Your task to perform on an android device: Search for "razer naga" on bestbuy.com, select the first entry, add it to the cart, then select checkout. Image 0: 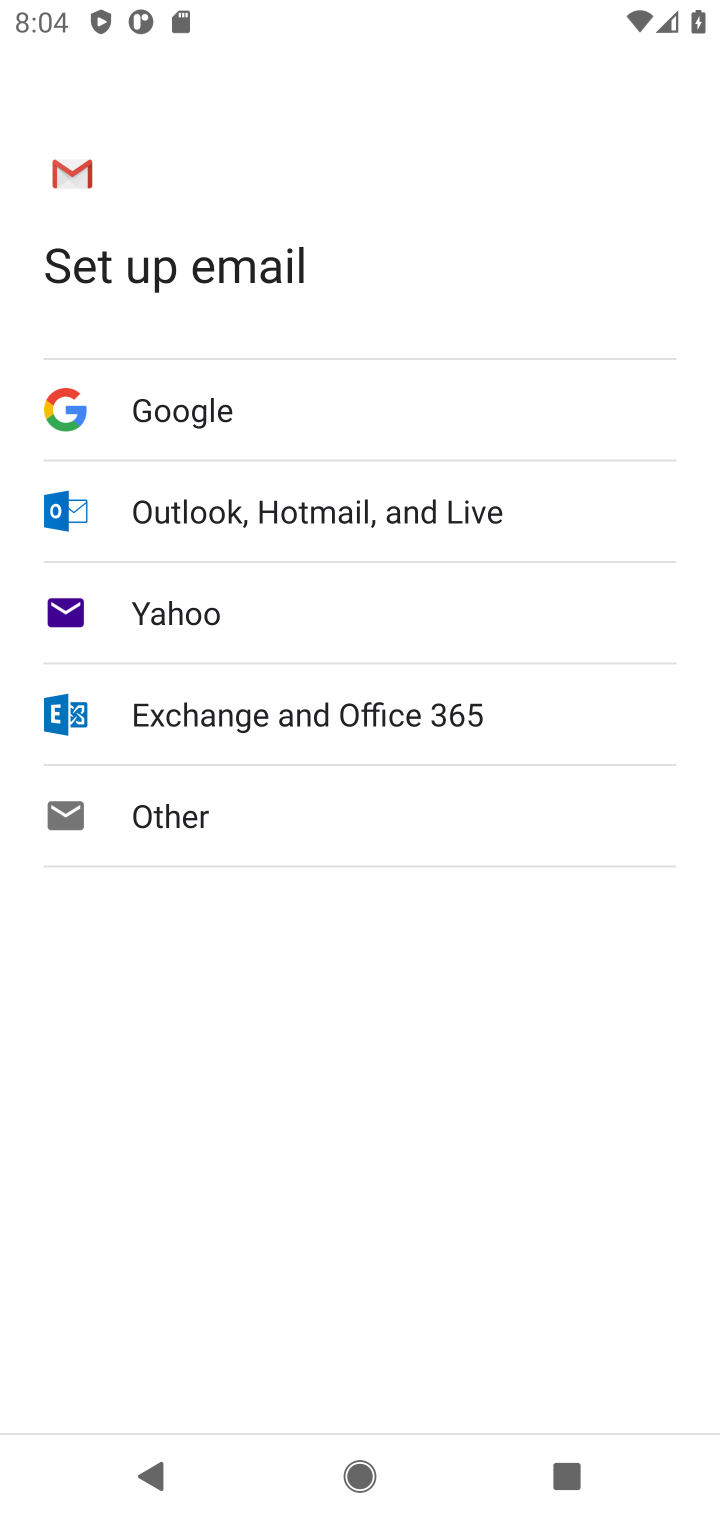
Step 0: press home button
Your task to perform on an android device: Search for "razer naga" on bestbuy.com, select the first entry, add it to the cart, then select checkout. Image 1: 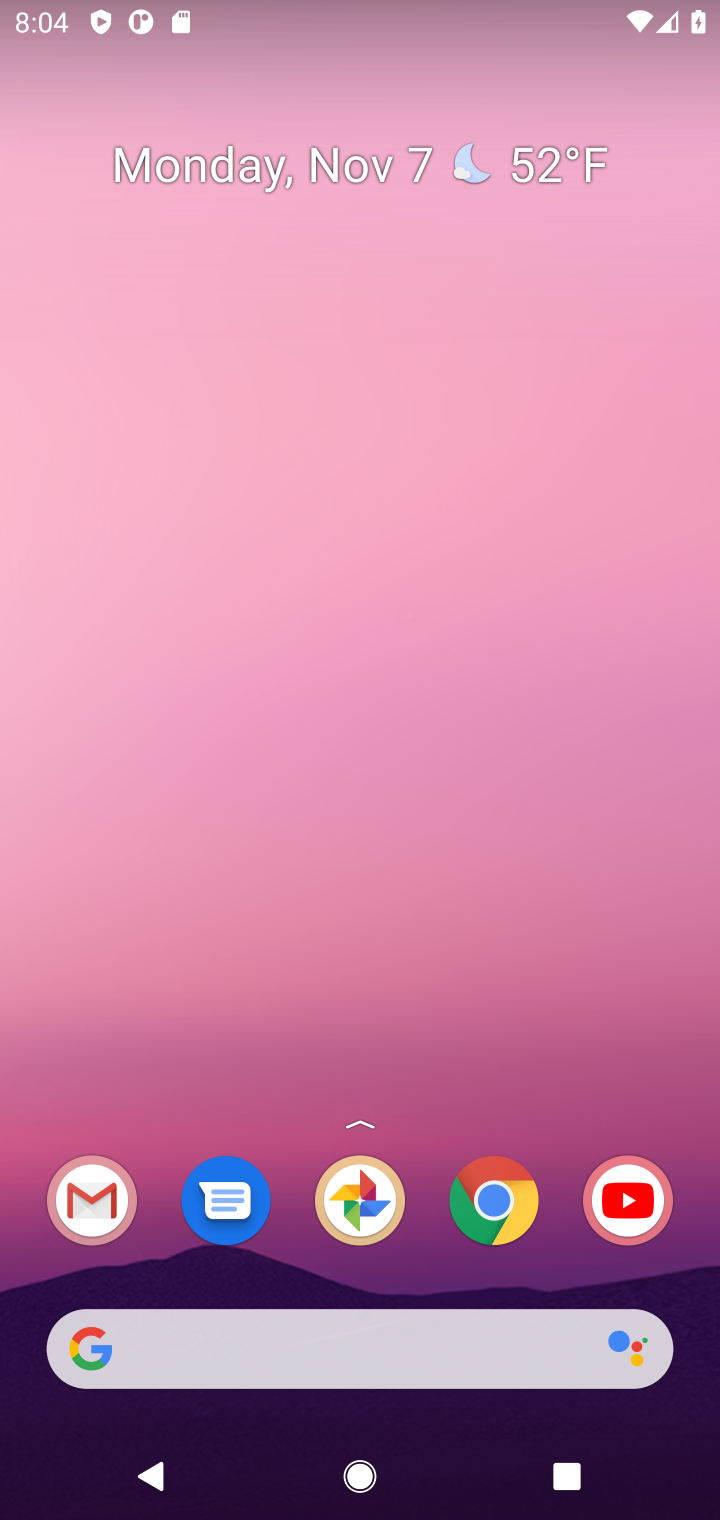
Step 1: click (505, 1194)
Your task to perform on an android device: Search for "razer naga" on bestbuy.com, select the first entry, add it to the cart, then select checkout. Image 2: 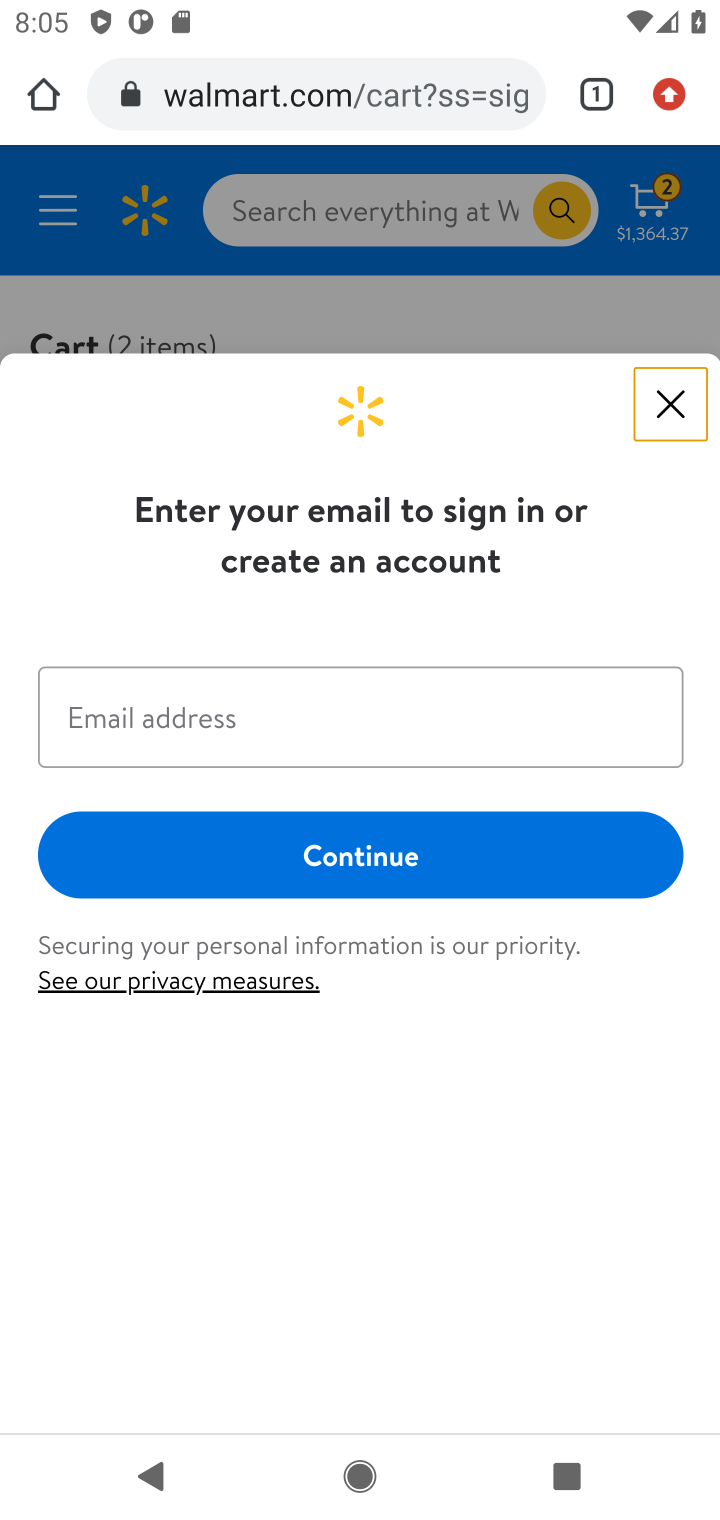
Step 2: click (304, 108)
Your task to perform on an android device: Search for "razer naga" on bestbuy.com, select the first entry, add it to the cart, then select checkout. Image 3: 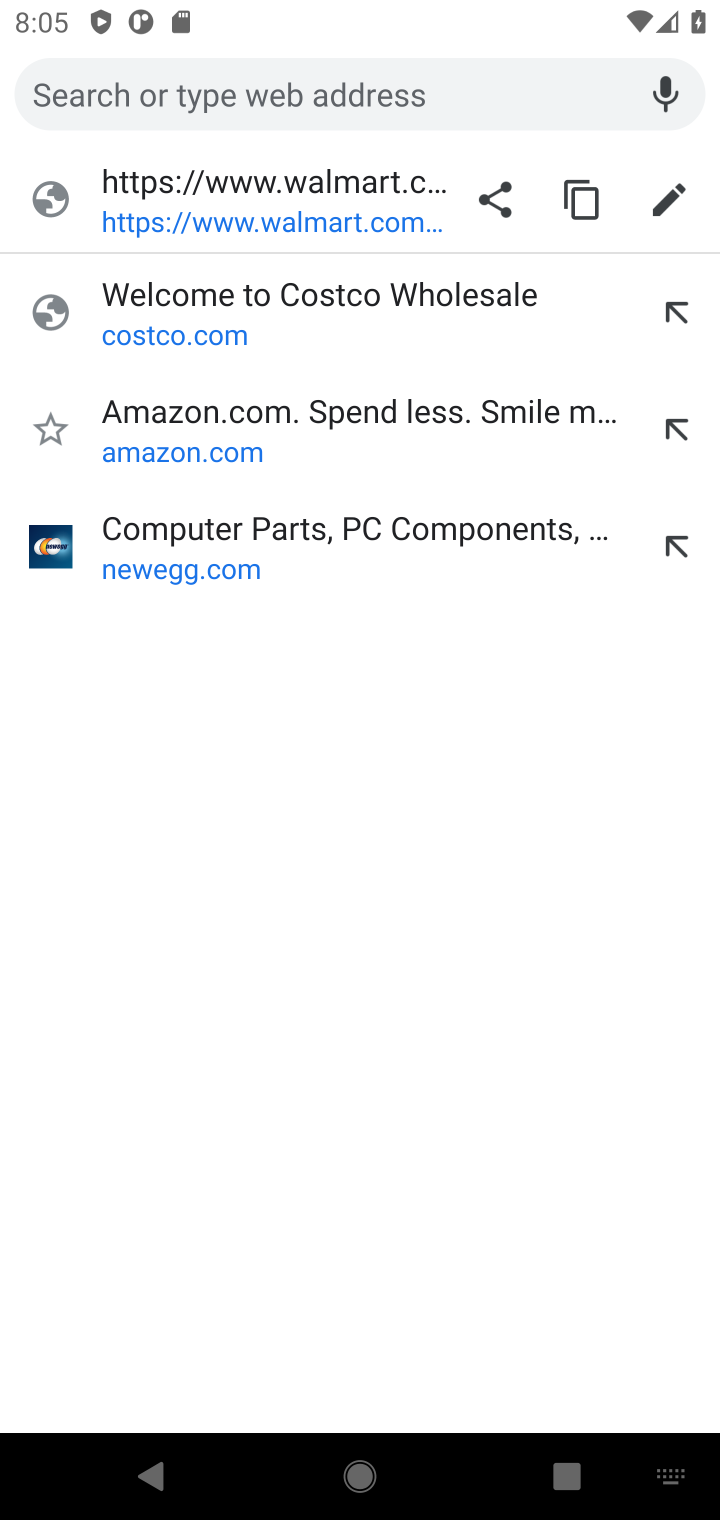
Step 3: type "bestbuy.com"
Your task to perform on an android device: Search for "razer naga" on bestbuy.com, select the first entry, add it to the cart, then select checkout. Image 4: 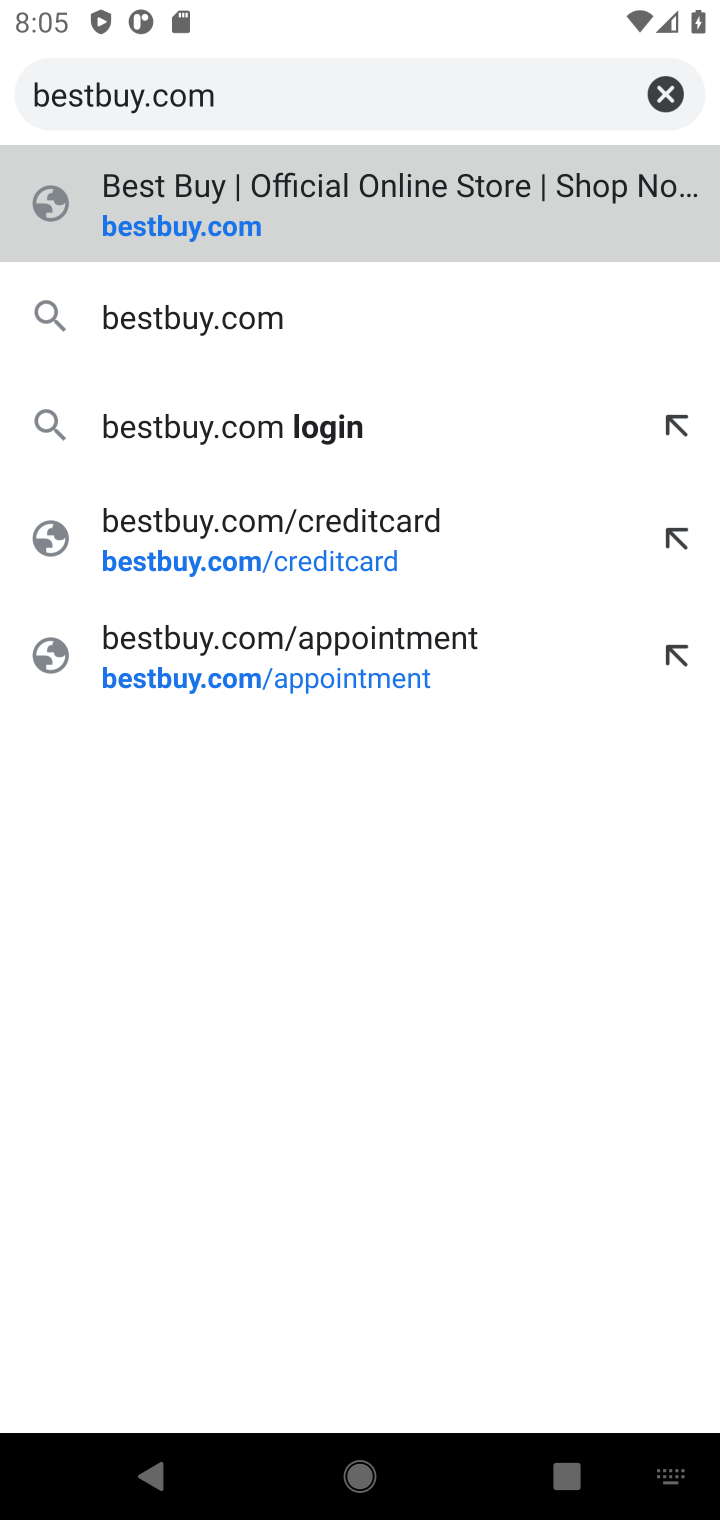
Step 4: press enter
Your task to perform on an android device: Search for "razer naga" on bestbuy.com, select the first entry, add it to the cart, then select checkout. Image 5: 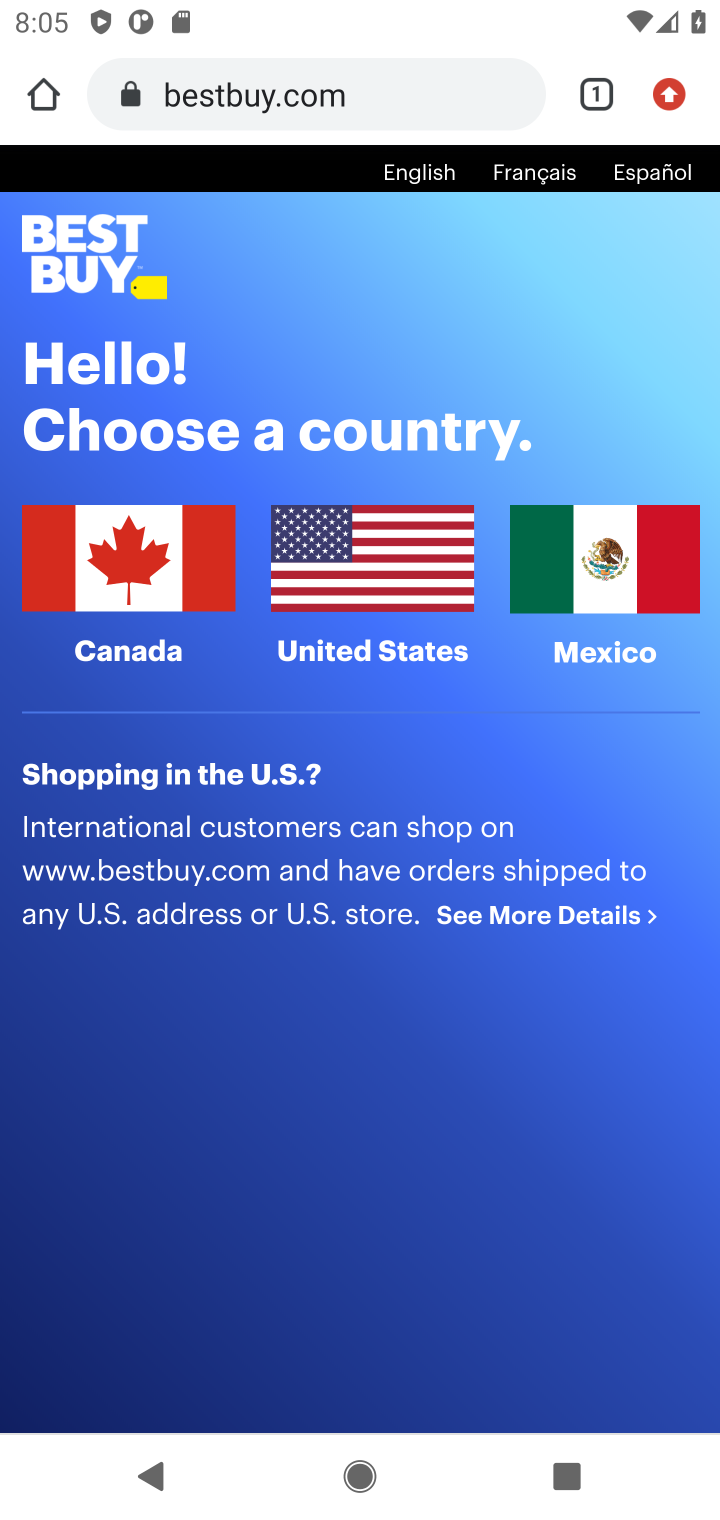
Step 5: click (358, 590)
Your task to perform on an android device: Search for "razer naga" on bestbuy.com, select the first entry, add it to the cart, then select checkout. Image 6: 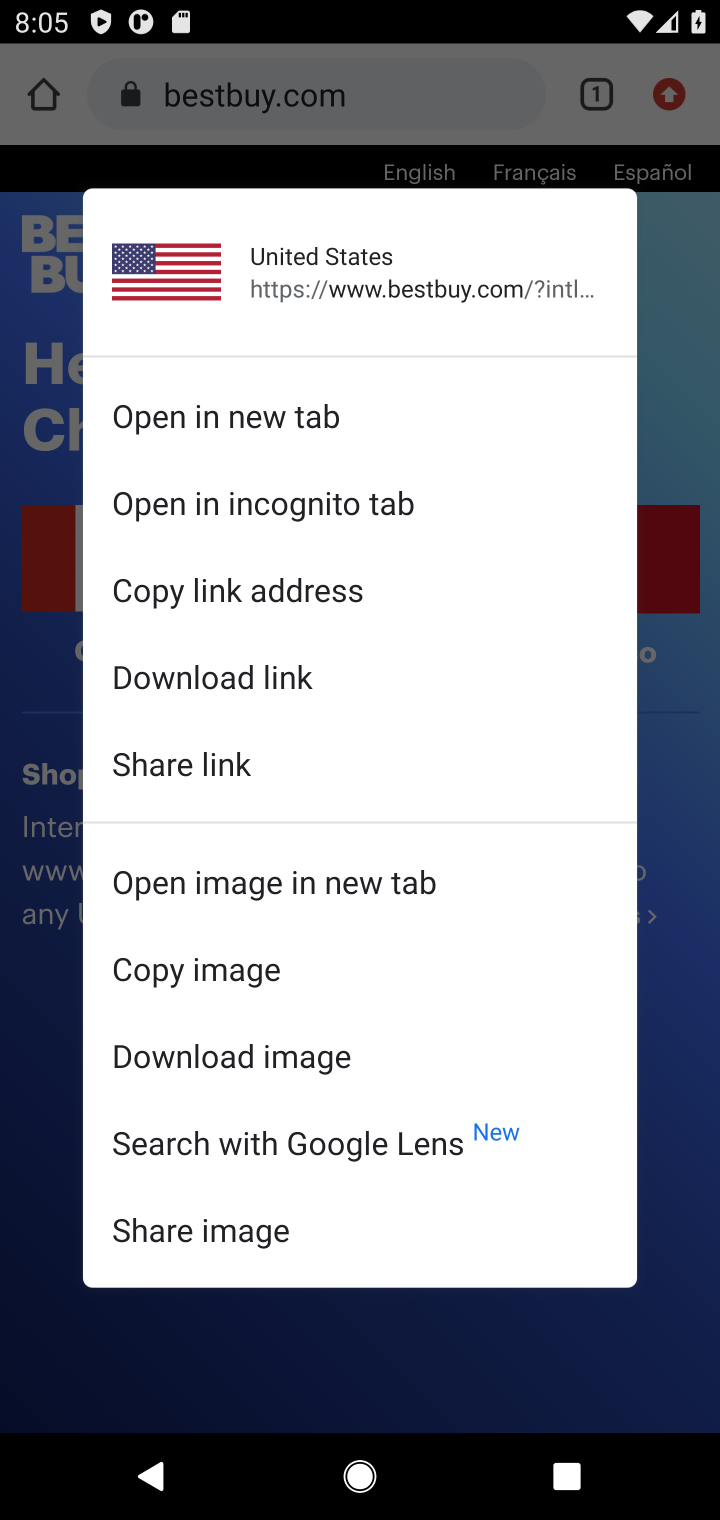
Step 6: click (661, 455)
Your task to perform on an android device: Search for "razer naga" on bestbuy.com, select the first entry, add it to the cart, then select checkout. Image 7: 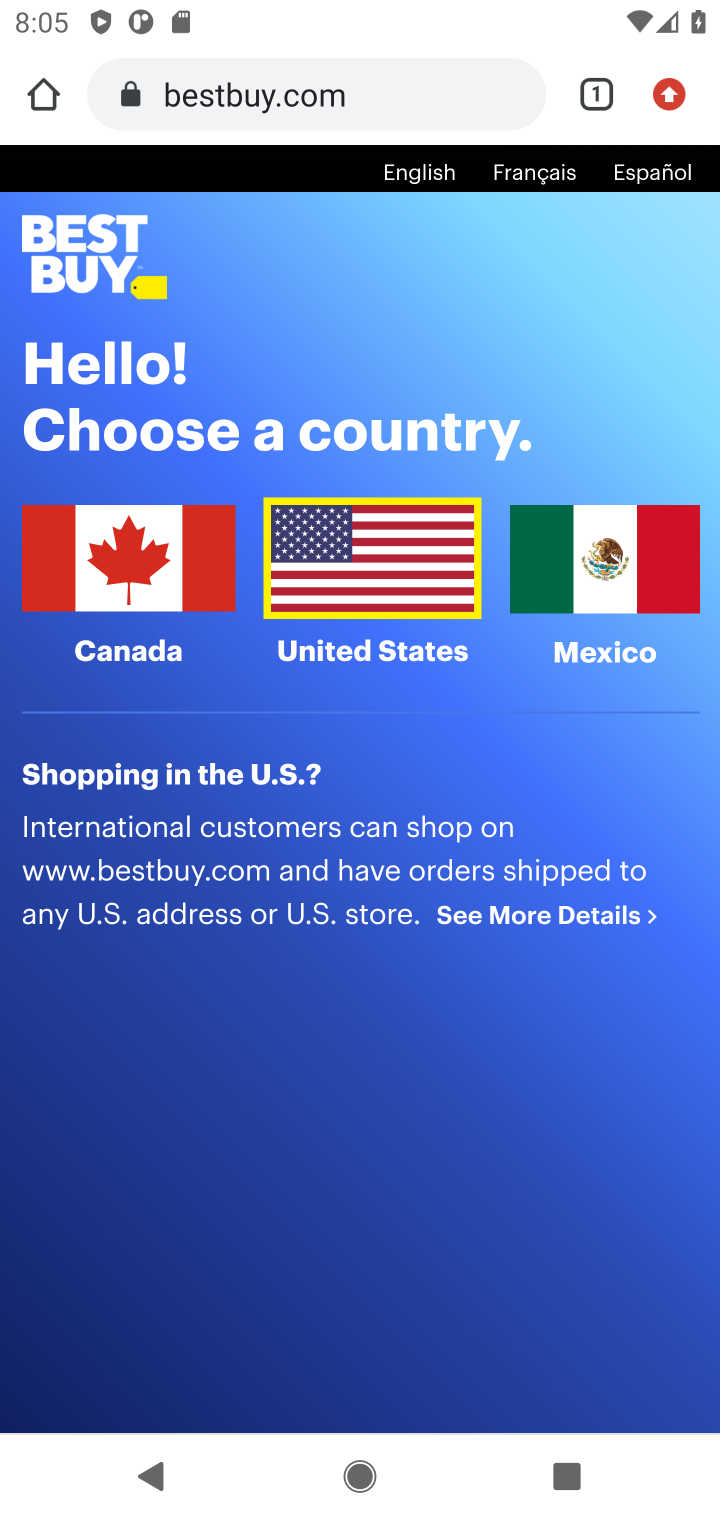
Step 7: click (348, 576)
Your task to perform on an android device: Search for "razer naga" on bestbuy.com, select the first entry, add it to the cart, then select checkout. Image 8: 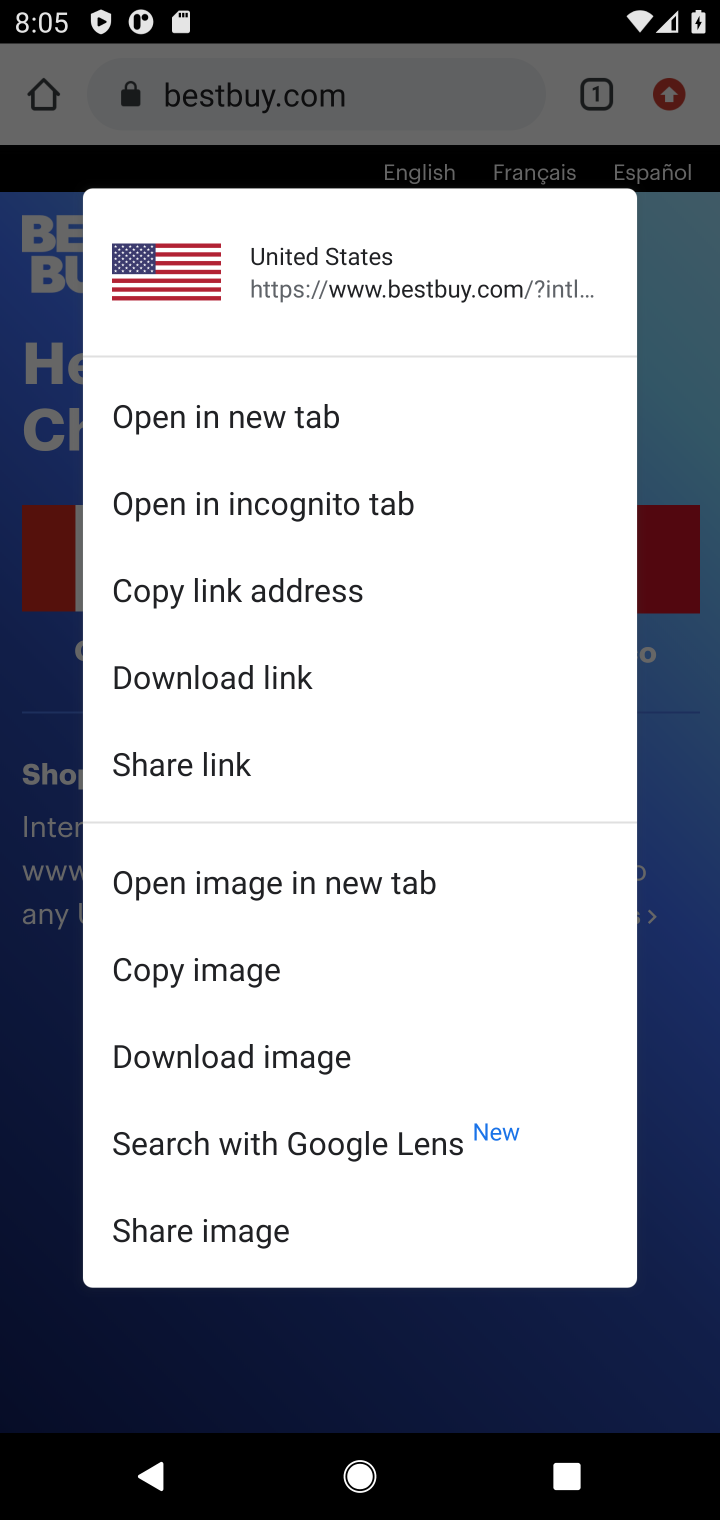
Step 8: click (707, 705)
Your task to perform on an android device: Search for "razer naga" on bestbuy.com, select the first entry, add it to the cart, then select checkout. Image 9: 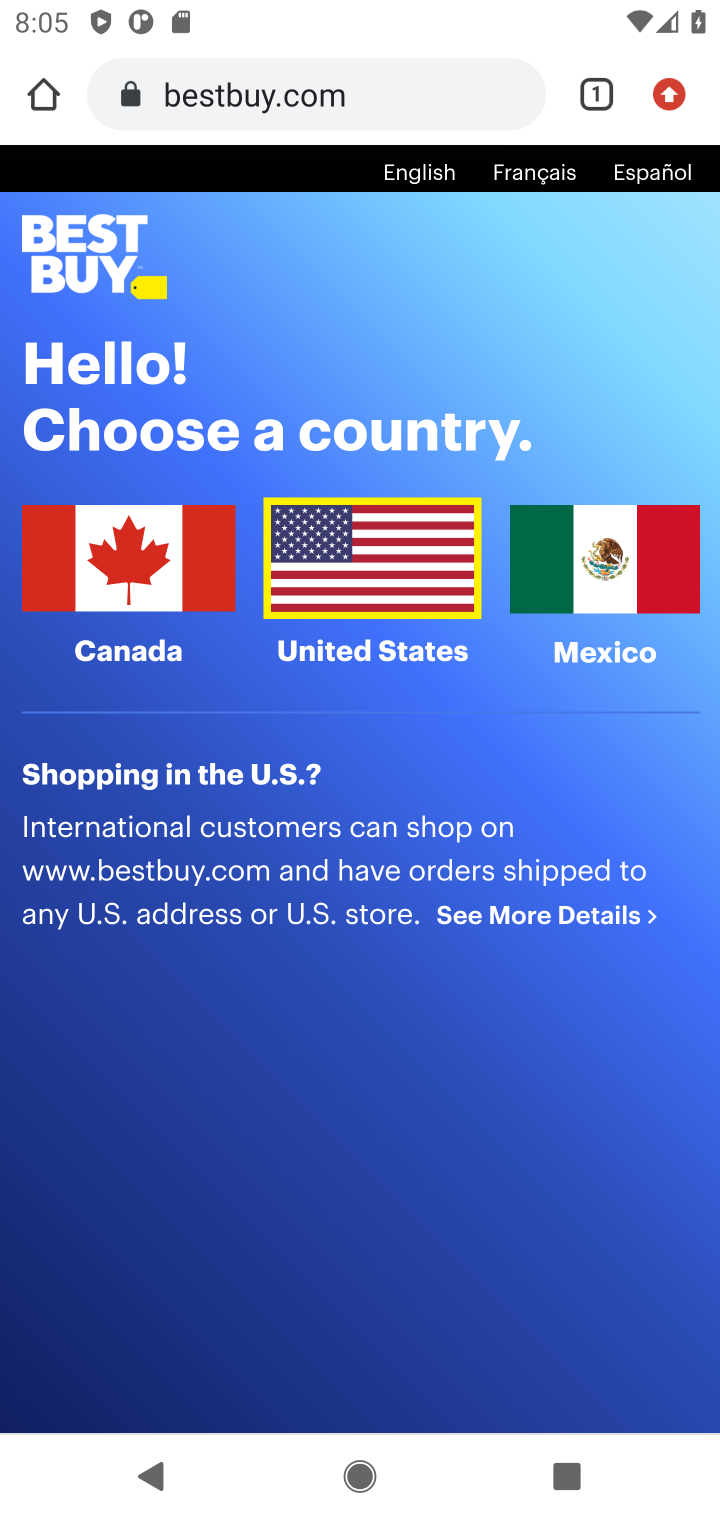
Step 9: click (355, 586)
Your task to perform on an android device: Search for "razer naga" on bestbuy.com, select the first entry, add it to the cart, then select checkout. Image 10: 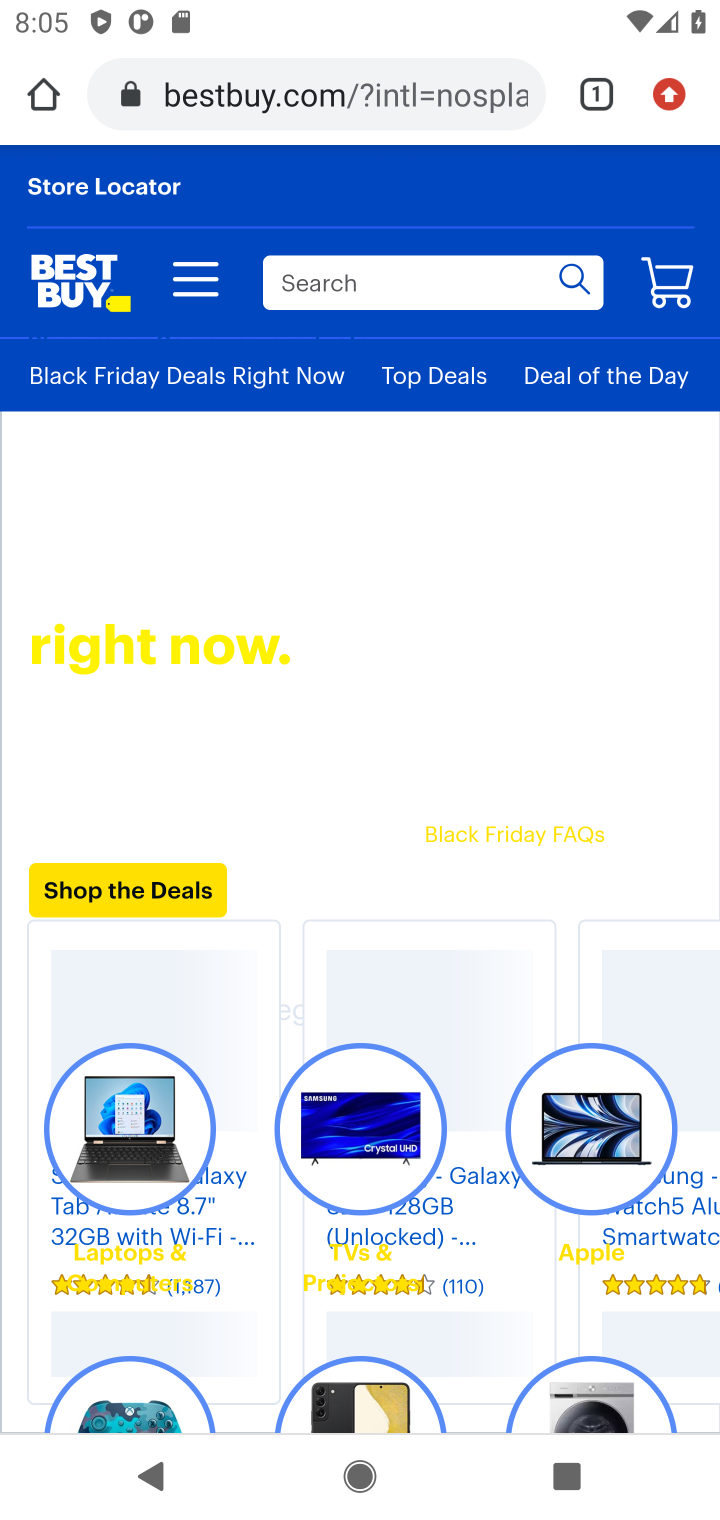
Step 10: click (363, 275)
Your task to perform on an android device: Search for "razer naga" on bestbuy.com, select the first entry, add it to the cart, then select checkout. Image 11: 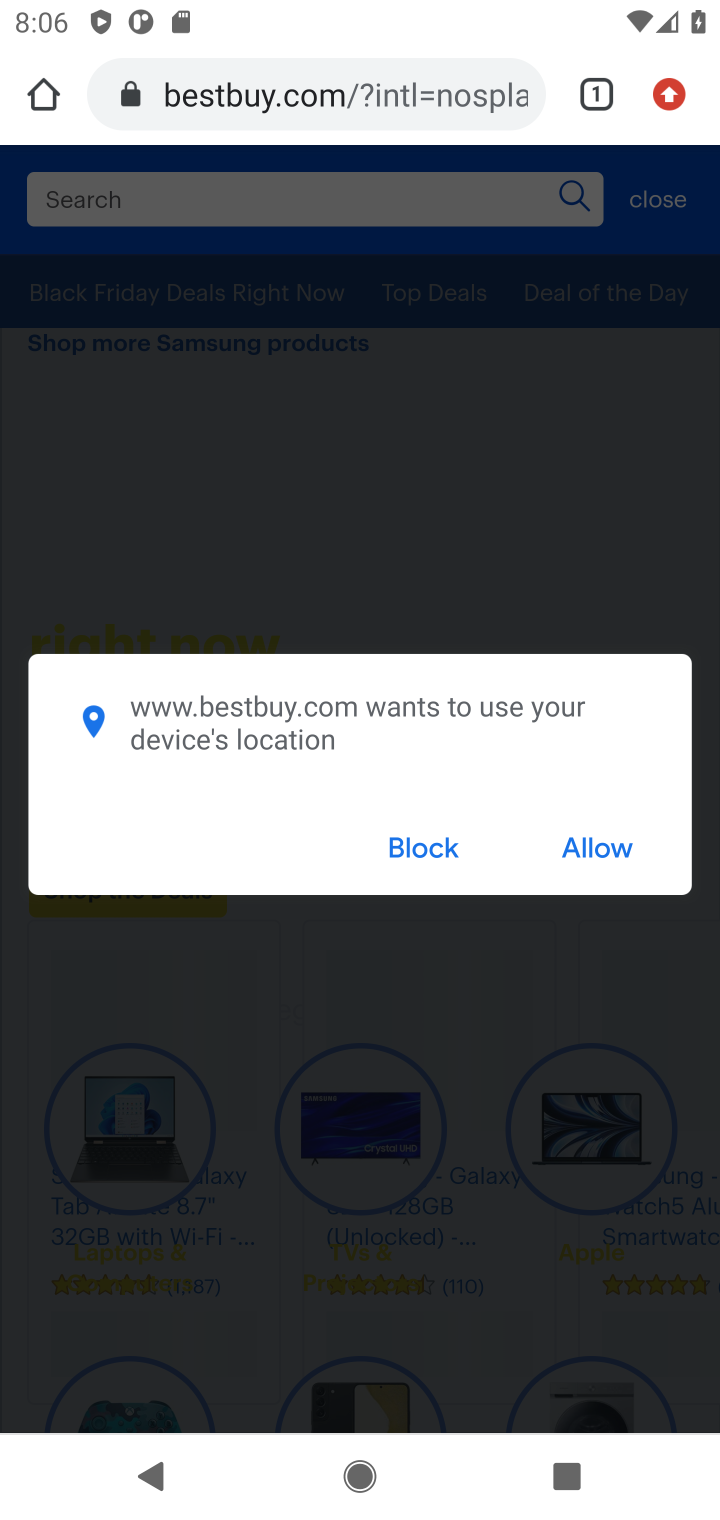
Step 11: type "razer naga"
Your task to perform on an android device: Search for "razer naga" on bestbuy.com, select the first entry, add it to the cart, then select checkout. Image 12: 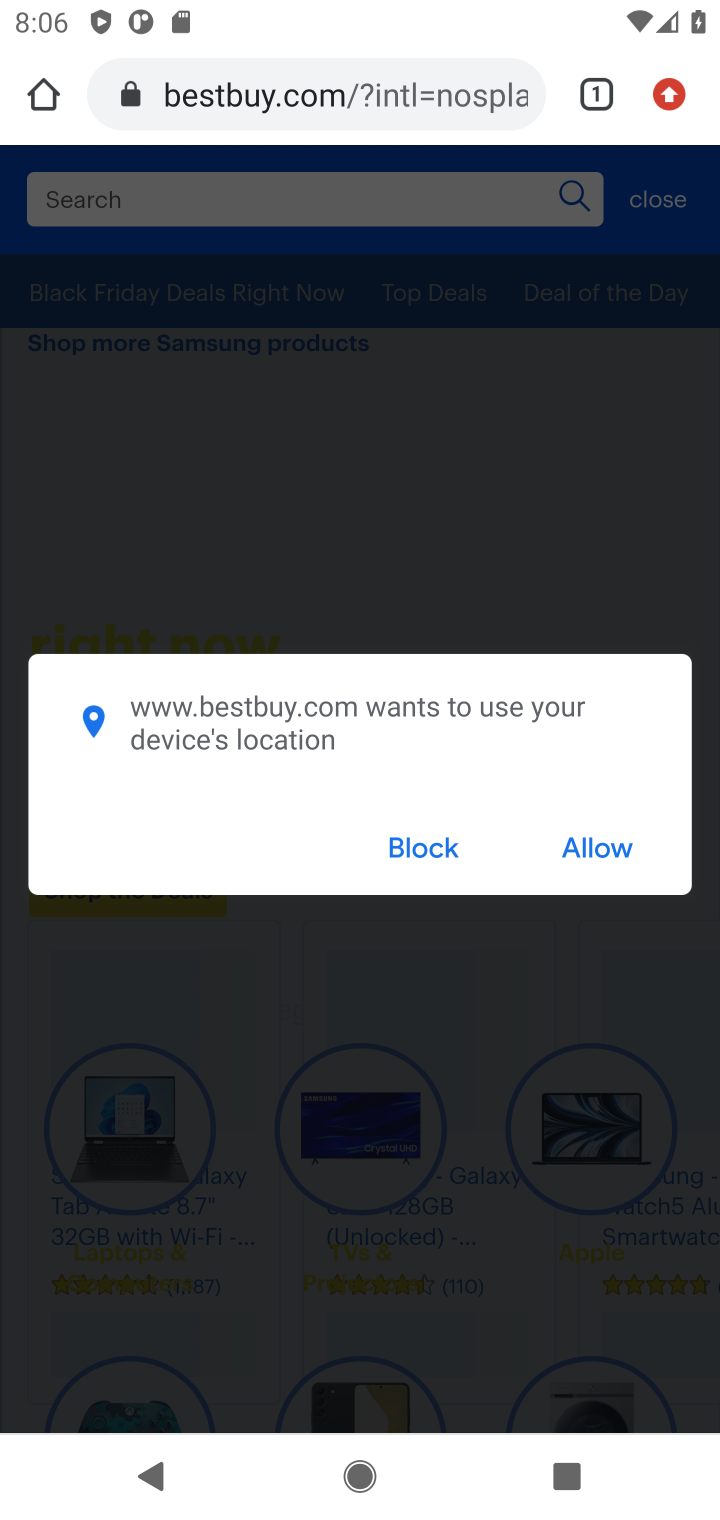
Step 12: click (607, 849)
Your task to perform on an android device: Search for "razer naga" on bestbuy.com, select the first entry, add it to the cart, then select checkout. Image 13: 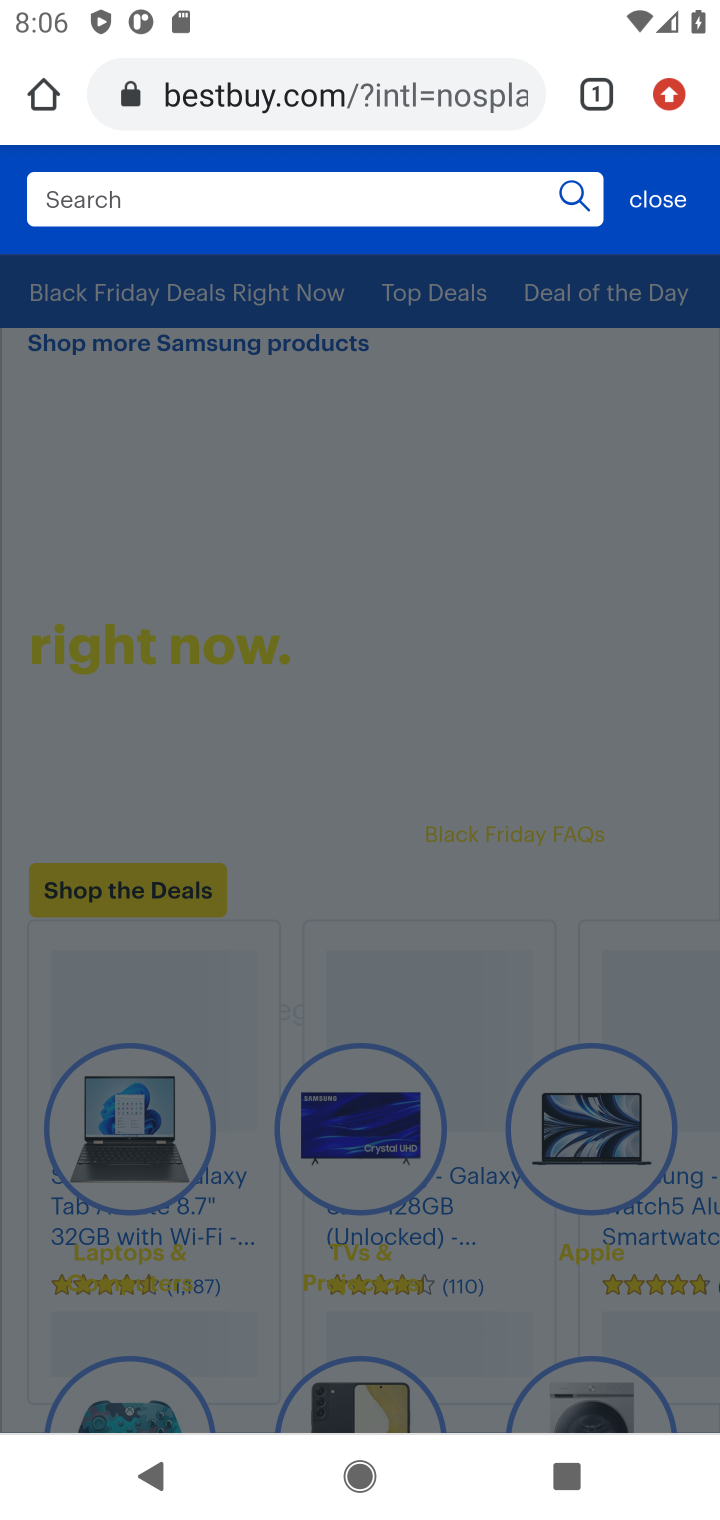
Step 13: type "razer naga"
Your task to perform on an android device: Search for "razer naga" on bestbuy.com, select the first entry, add it to the cart, then select checkout. Image 14: 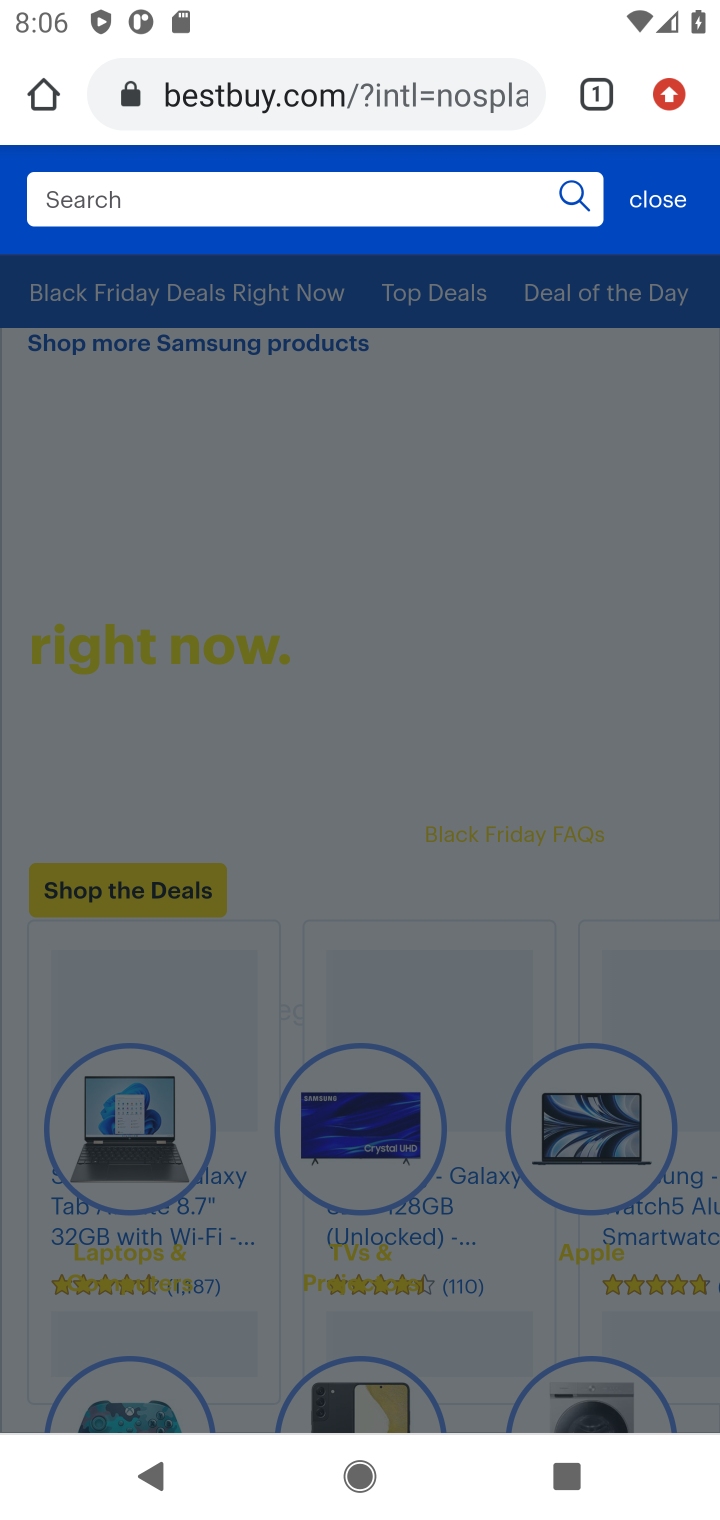
Step 14: click (400, 215)
Your task to perform on an android device: Search for "razer naga" on bestbuy.com, select the first entry, add it to the cart, then select checkout. Image 15: 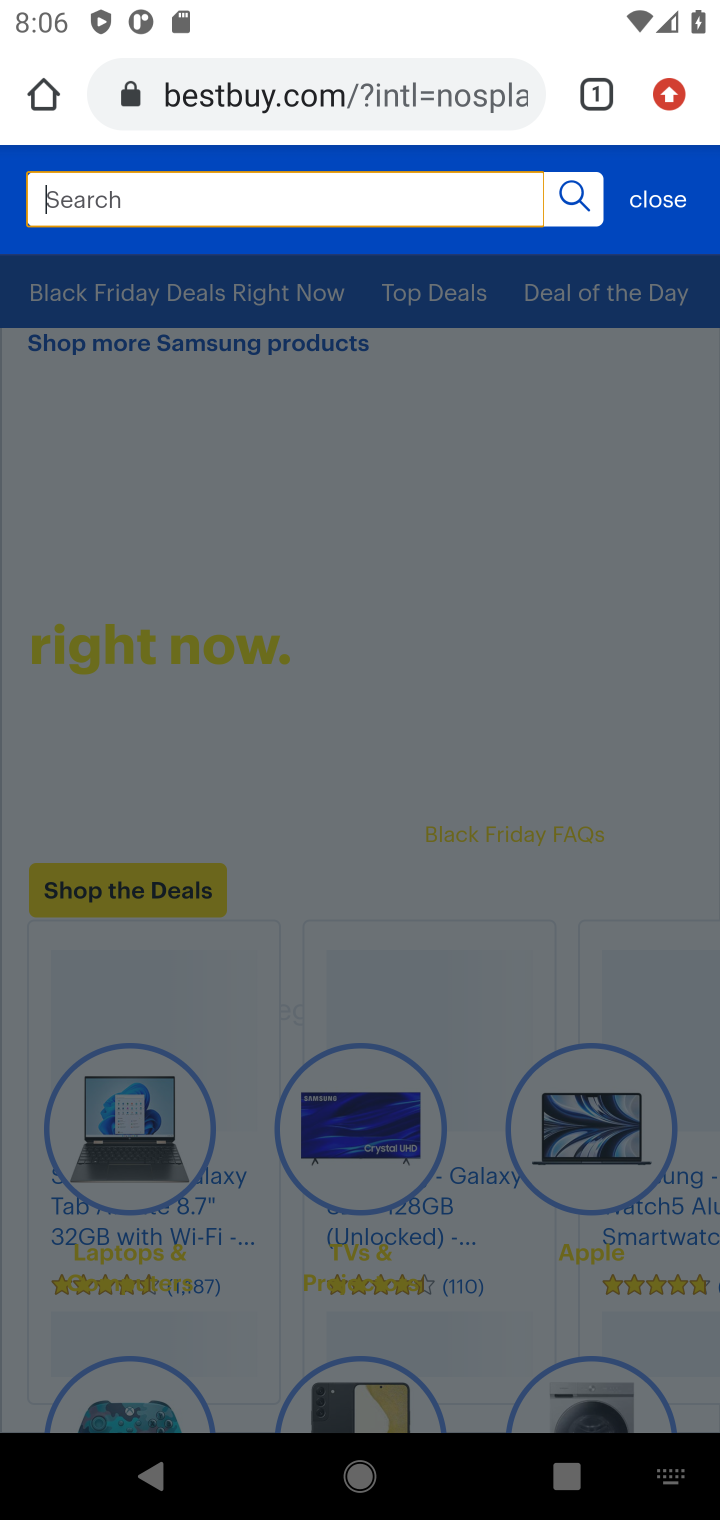
Step 15: type "razer naga"
Your task to perform on an android device: Search for "razer naga" on bestbuy.com, select the first entry, add it to the cart, then select checkout. Image 16: 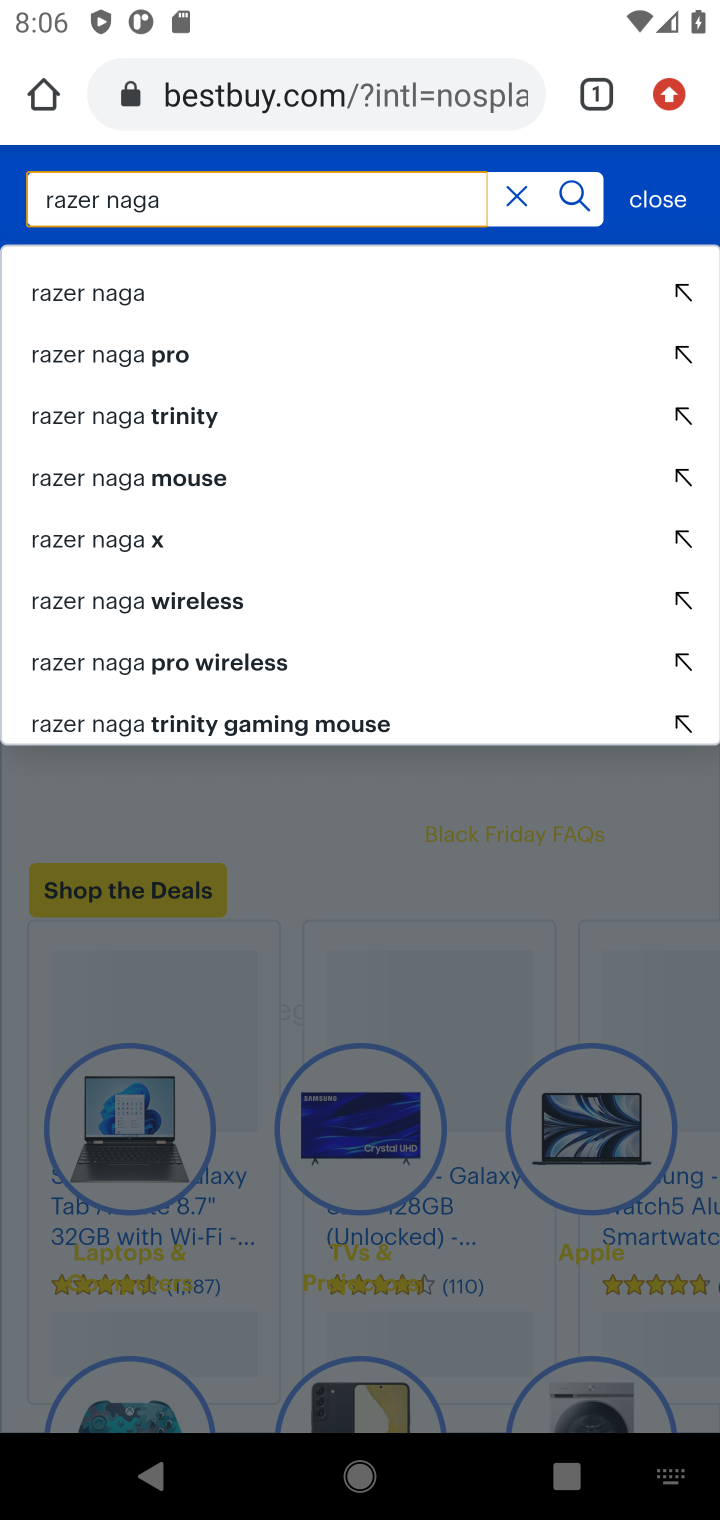
Step 16: press enter
Your task to perform on an android device: Search for "razer naga" on bestbuy.com, select the first entry, add it to the cart, then select checkout. Image 17: 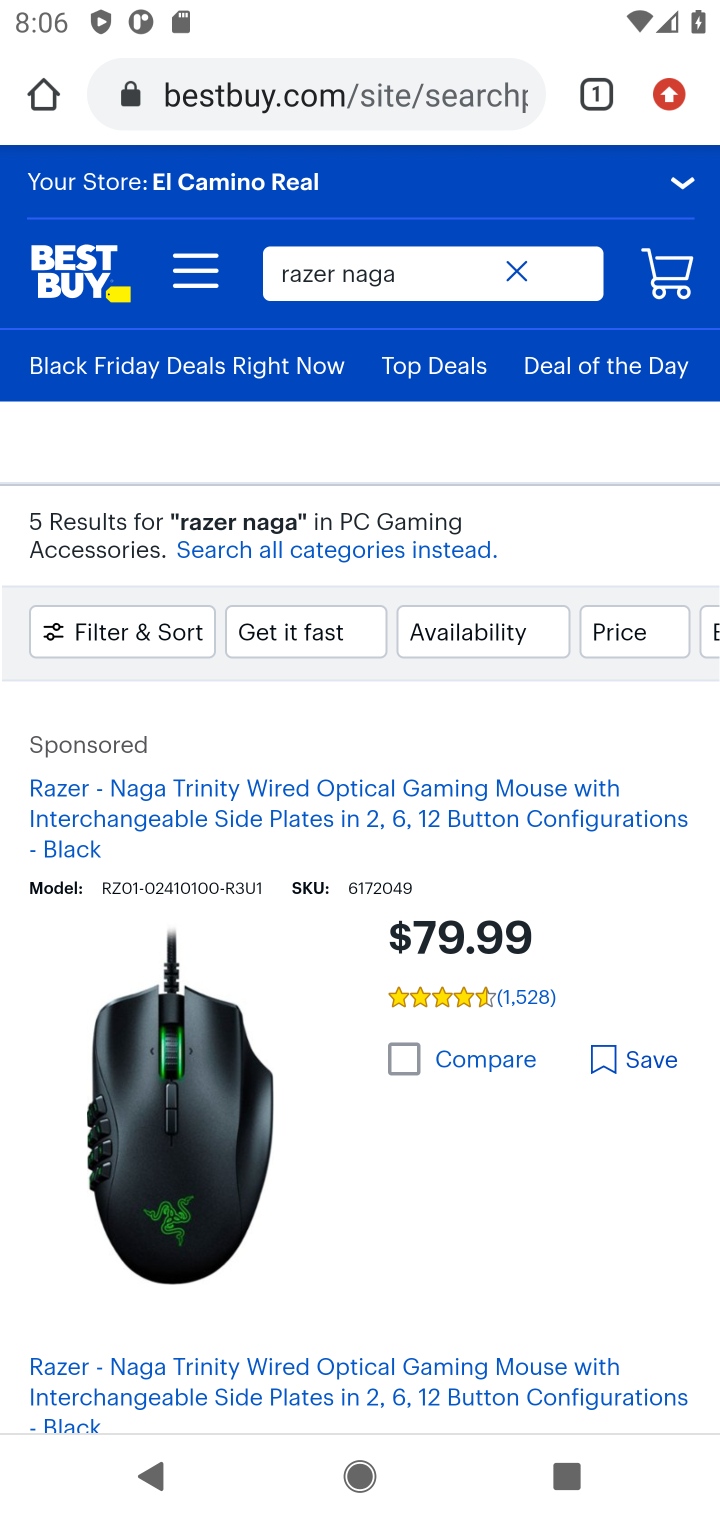
Step 17: drag from (448, 1096) to (466, 842)
Your task to perform on an android device: Search for "razer naga" on bestbuy.com, select the first entry, add it to the cart, then select checkout. Image 18: 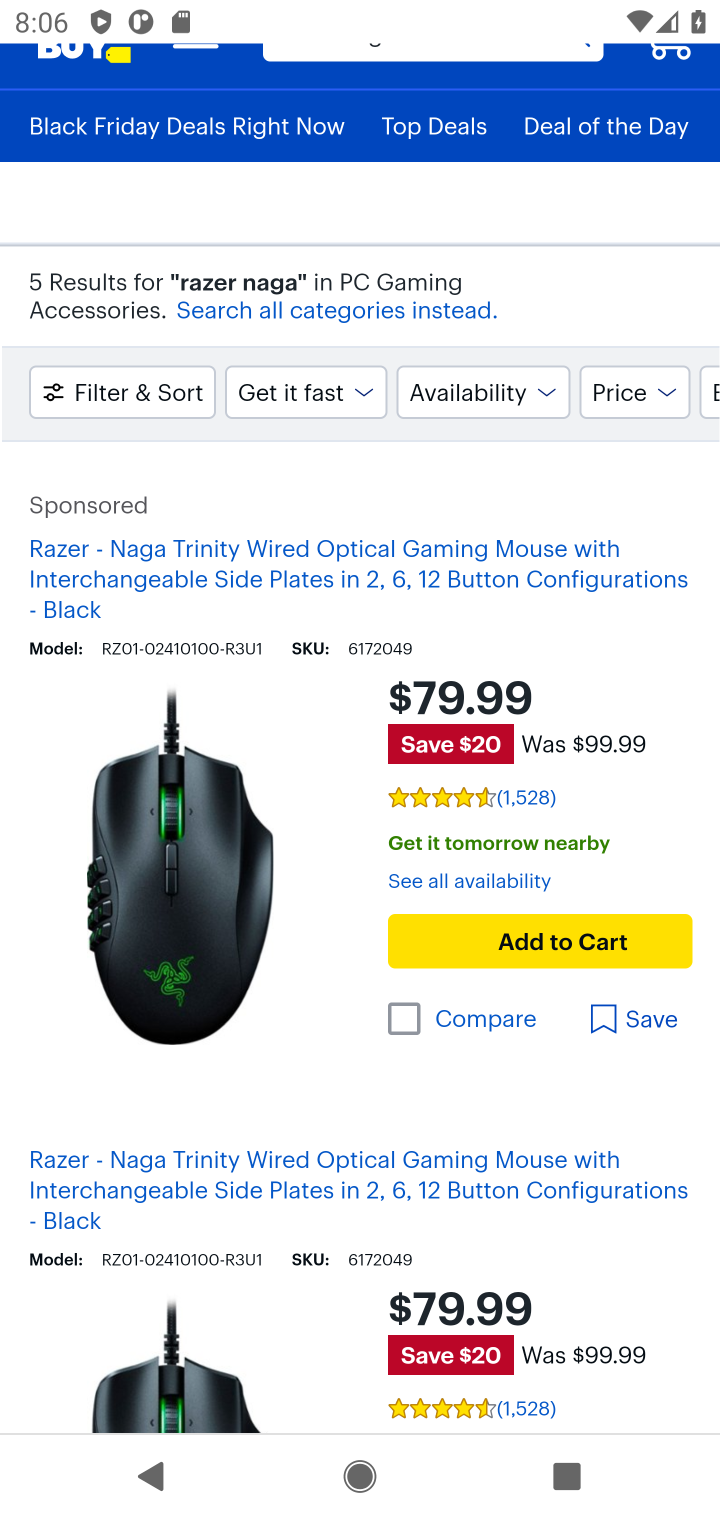
Step 18: click (501, 948)
Your task to perform on an android device: Search for "razer naga" on bestbuy.com, select the first entry, add it to the cart, then select checkout. Image 19: 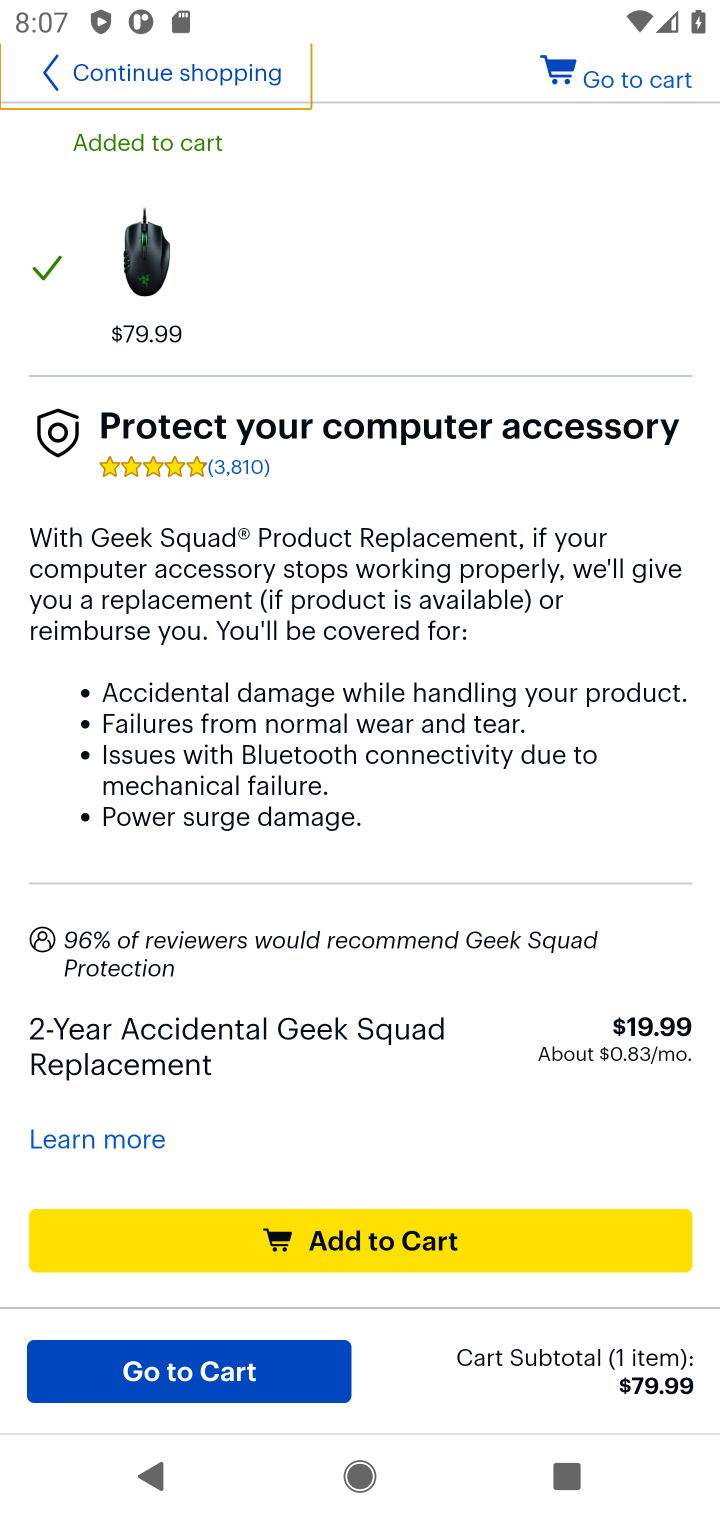
Step 19: click (251, 1382)
Your task to perform on an android device: Search for "razer naga" on bestbuy.com, select the first entry, add it to the cart, then select checkout. Image 20: 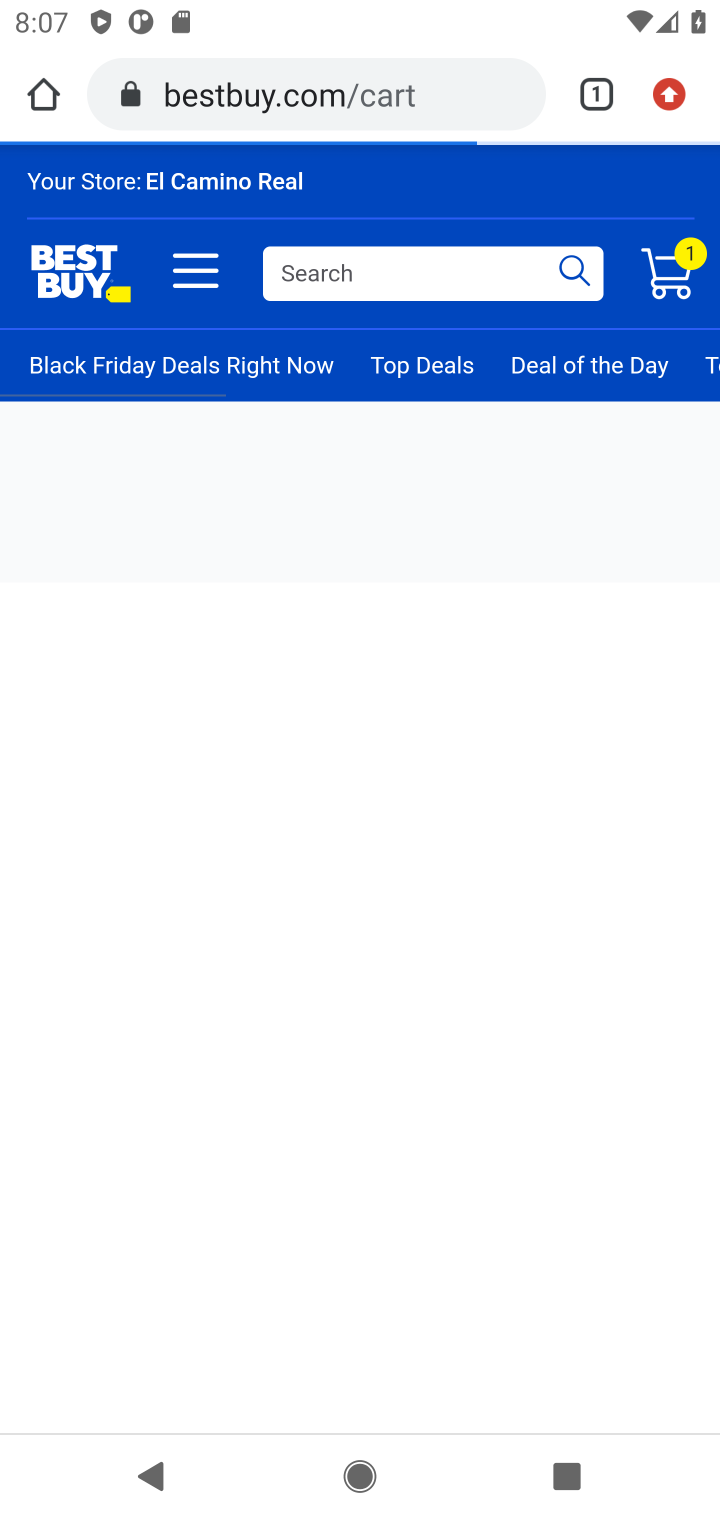
Step 20: click (251, 1382)
Your task to perform on an android device: Search for "razer naga" on bestbuy.com, select the first entry, add it to the cart, then select checkout. Image 21: 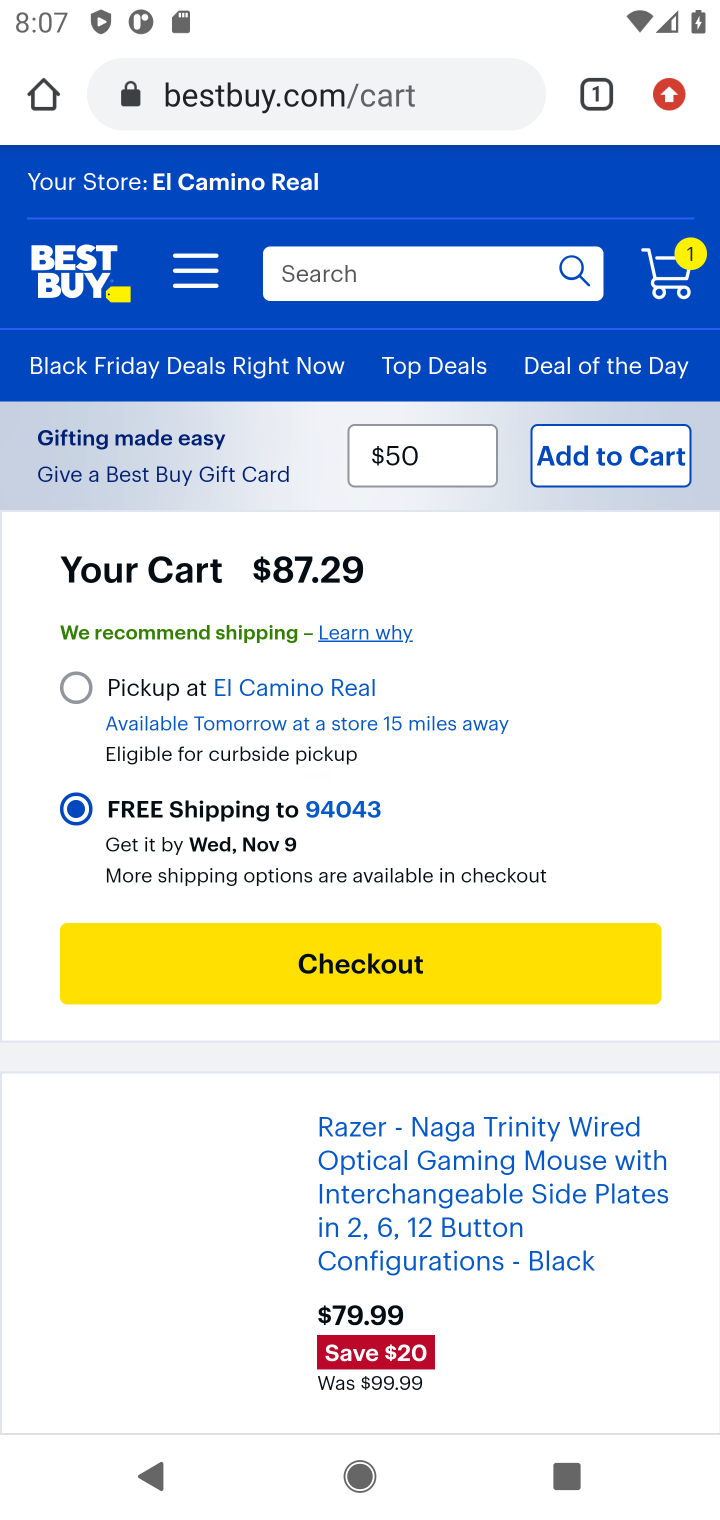
Step 21: click (379, 972)
Your task to perform on an android device: Search for "razer naga" on bestbuy.com, select the first entry, add it to the cart, then select checkout. Image 22: 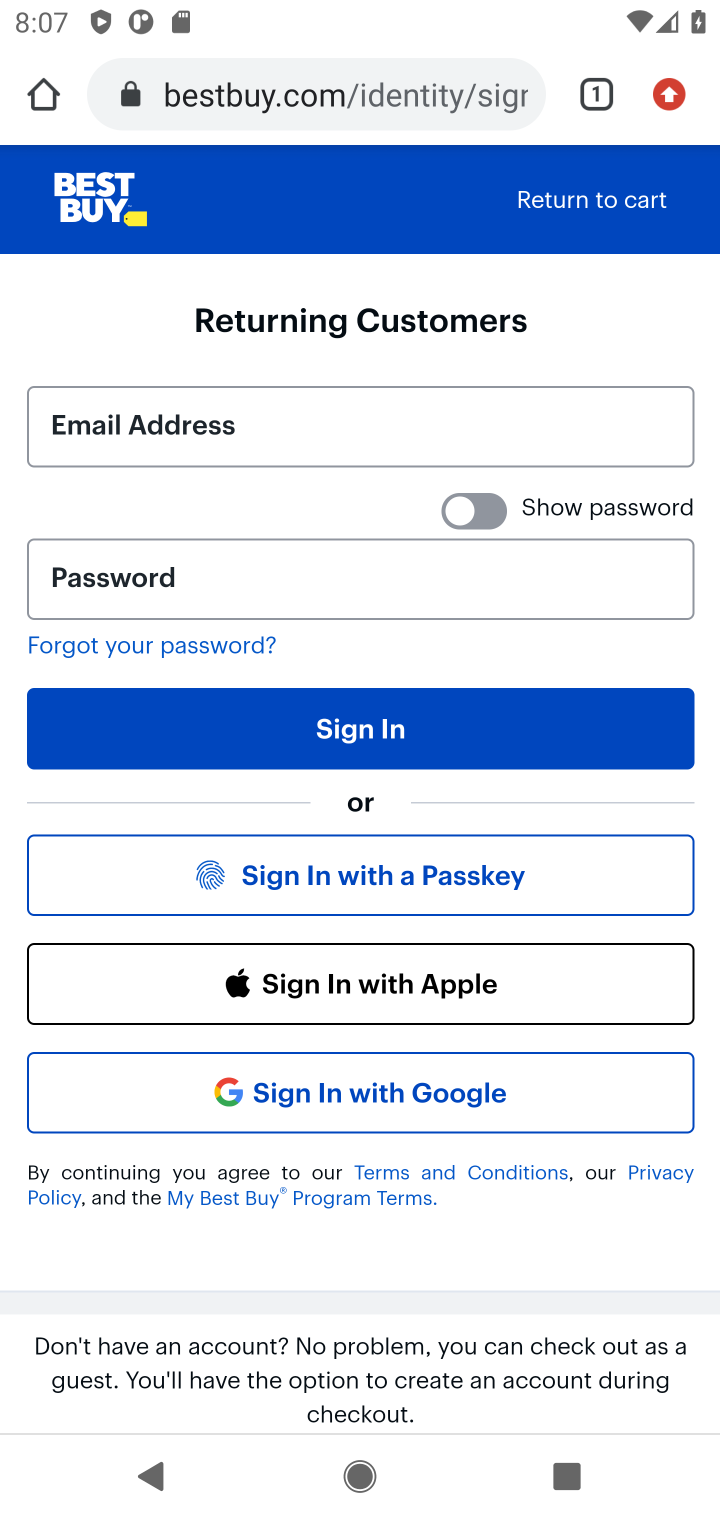
Step 22: task complete